Your task to perform on an android device: Clear the shopping cart on walmart. Search for usb-b on walmart, select the first entry, add it to the cart, then select checkout. Image 0: 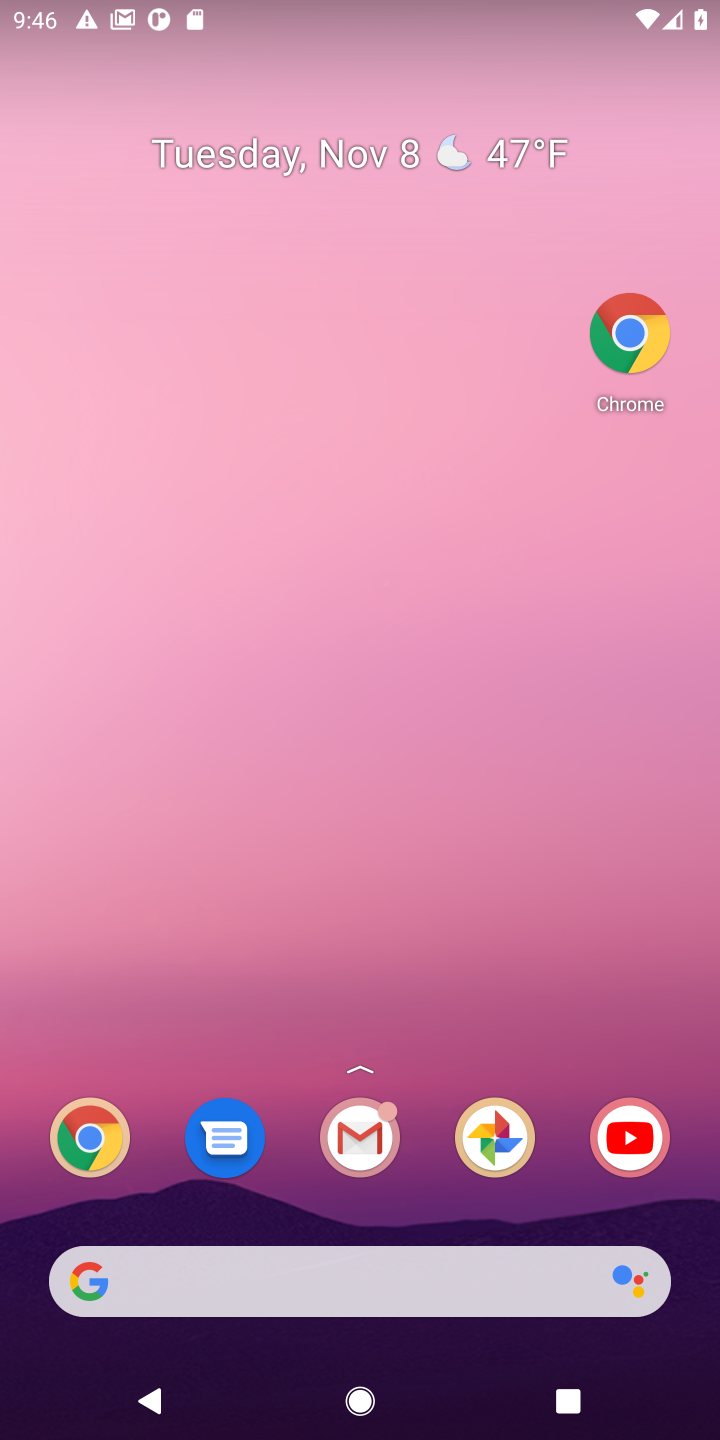
Step 0: drag from (398, 1121) to (339, 156)
Your task to perform on an android device: Clear the shopping cart on walmart. Search for usb-b on walmart, select the first entry, add it to the cart, then select checkout. Image 1: 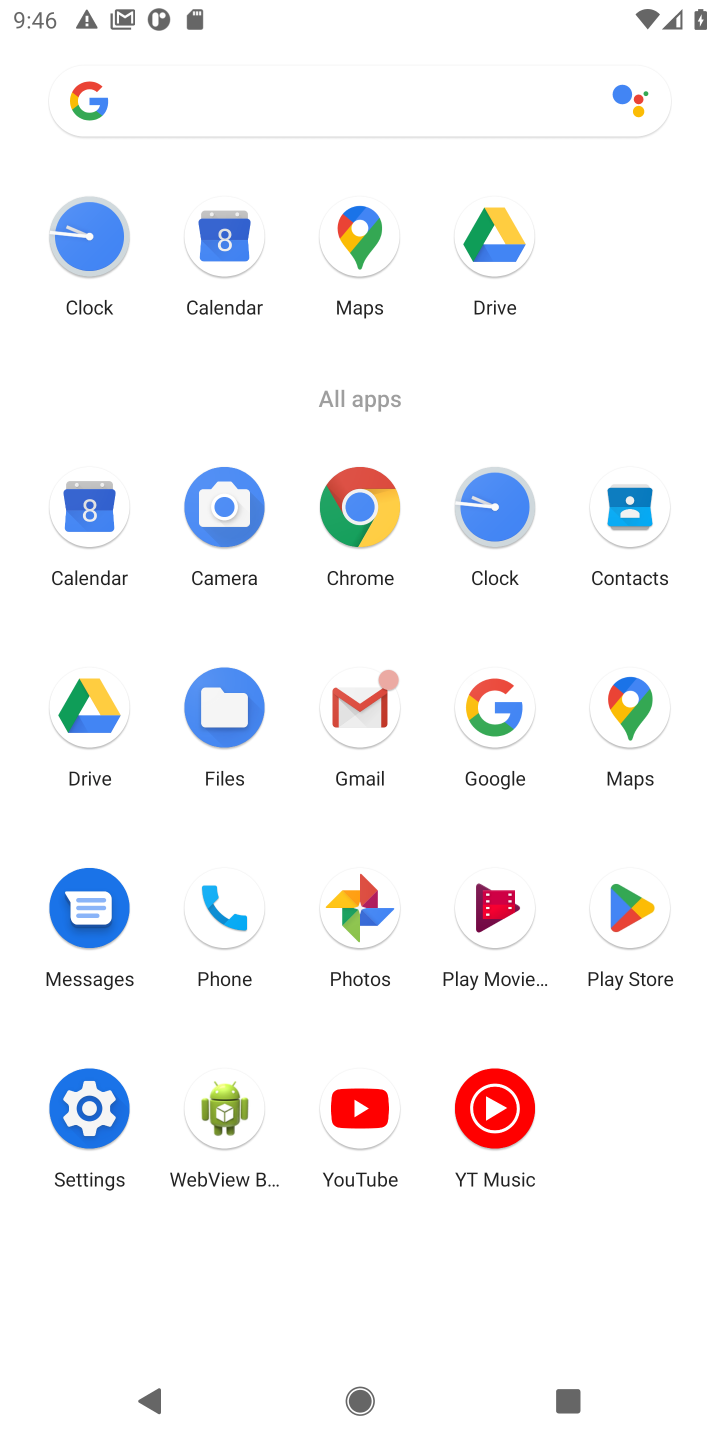
Step 1: click (352, 525)
Your task to perform on an android device: Clear the shopping cart on walmart. Search for usb-b on walmart, select the first entry, add it to the cart, then select checkout. Image 2: 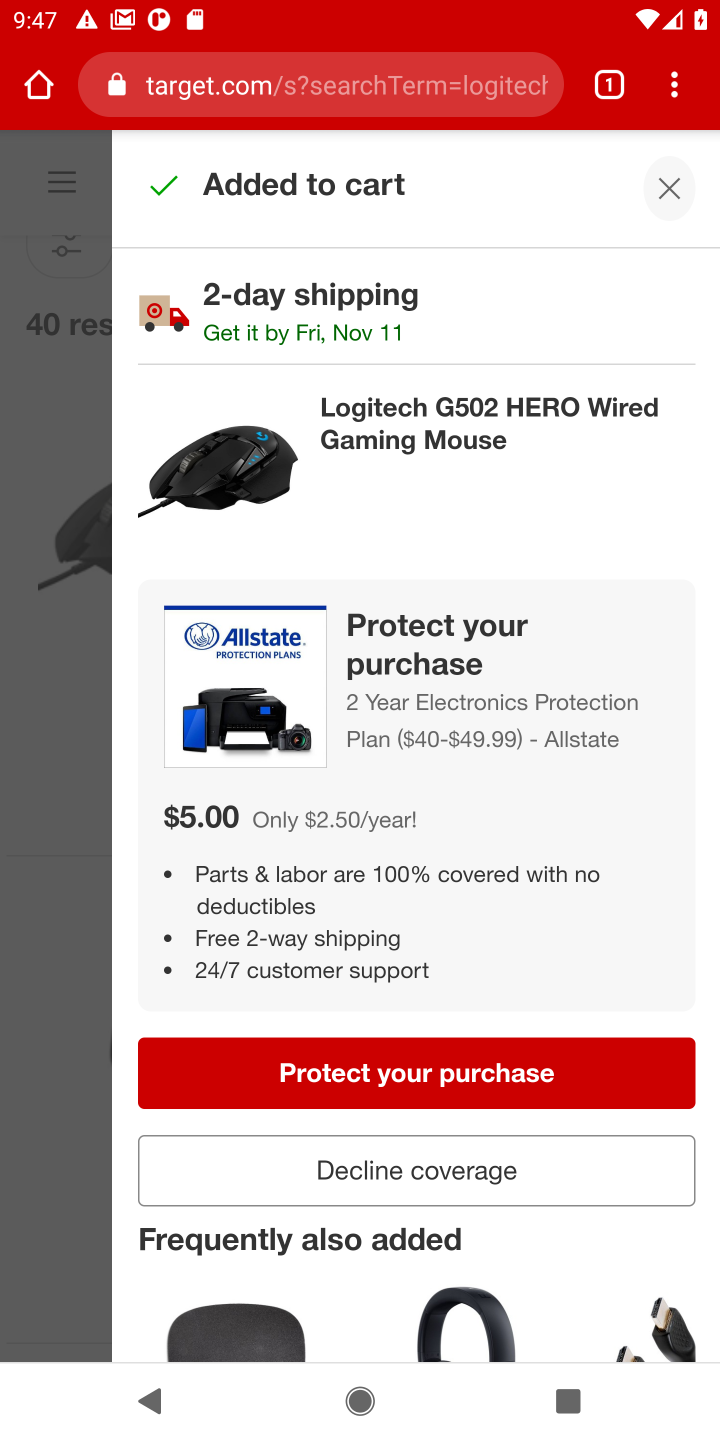
Step 2: click (409, 93)
Your task to perform on an android device: Clear the shopping cart on walmart. Search for usb-b on walmart, select the first entry, add it to the cart, then select checkout. Image 3: 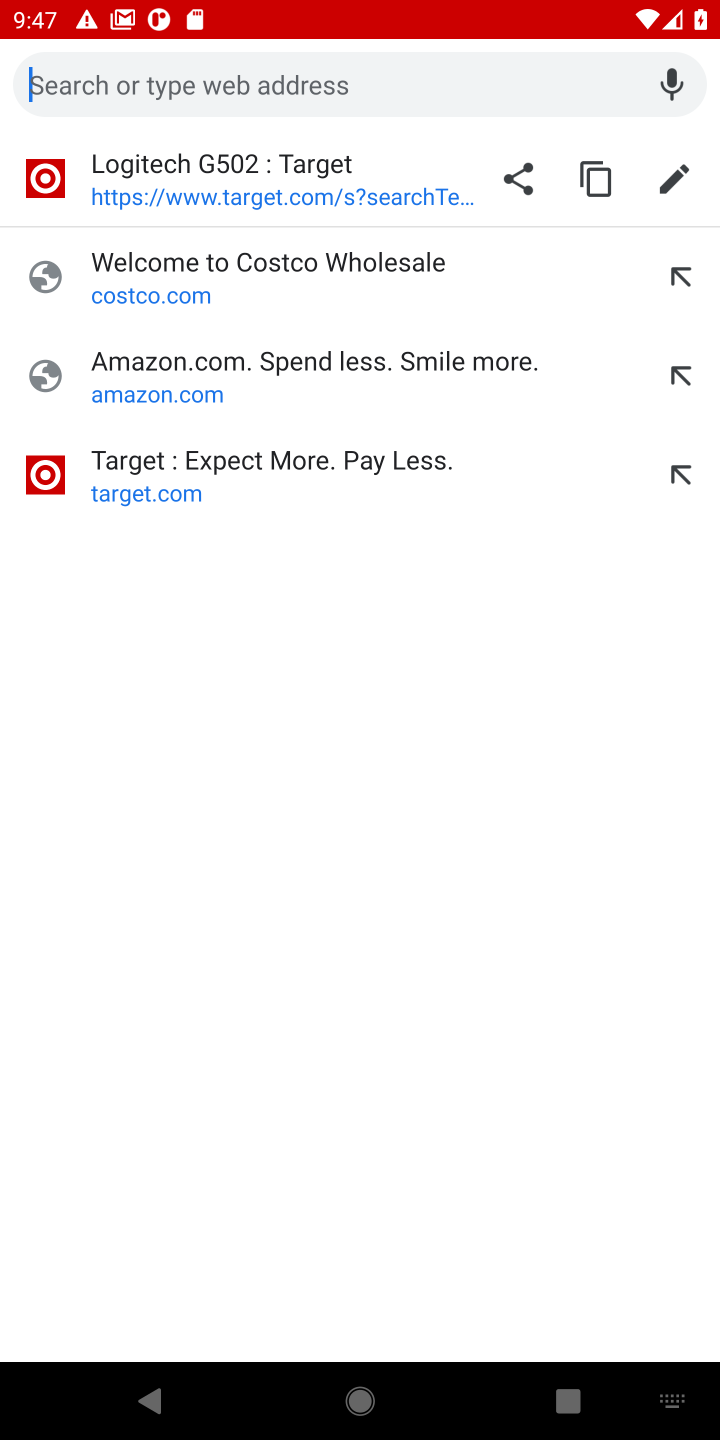
Step 3: press enter
Your task to perform on an android device: Clear the shopping cart on walmart. Search for usb-b on walmart, select the first entry, add it to the cart, then select checkout. Image 4: 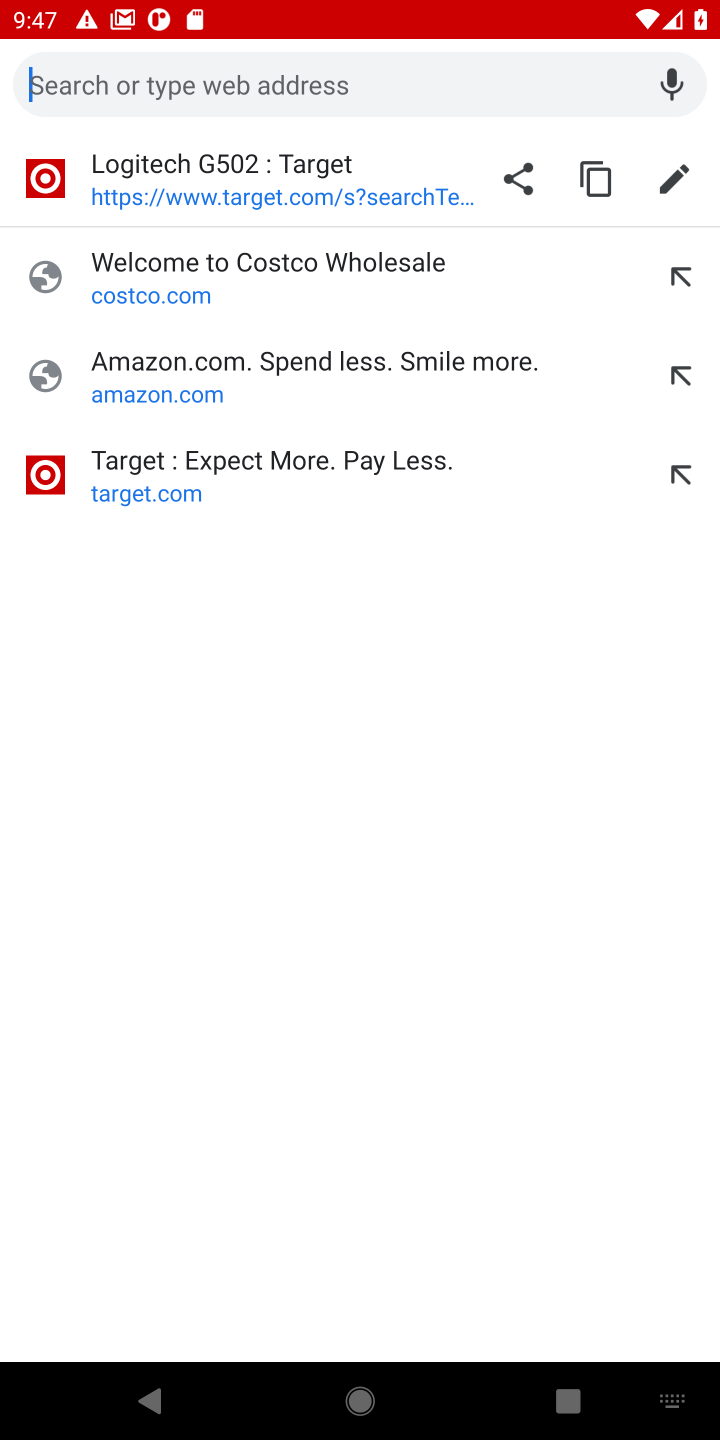
Step 4: type "walmart."
Your task to perform on an android device: Clear the shopping cart on walmart. Search for usb-b on walmart, select the first entry, add it to the cart, then select checkout. Image 5: 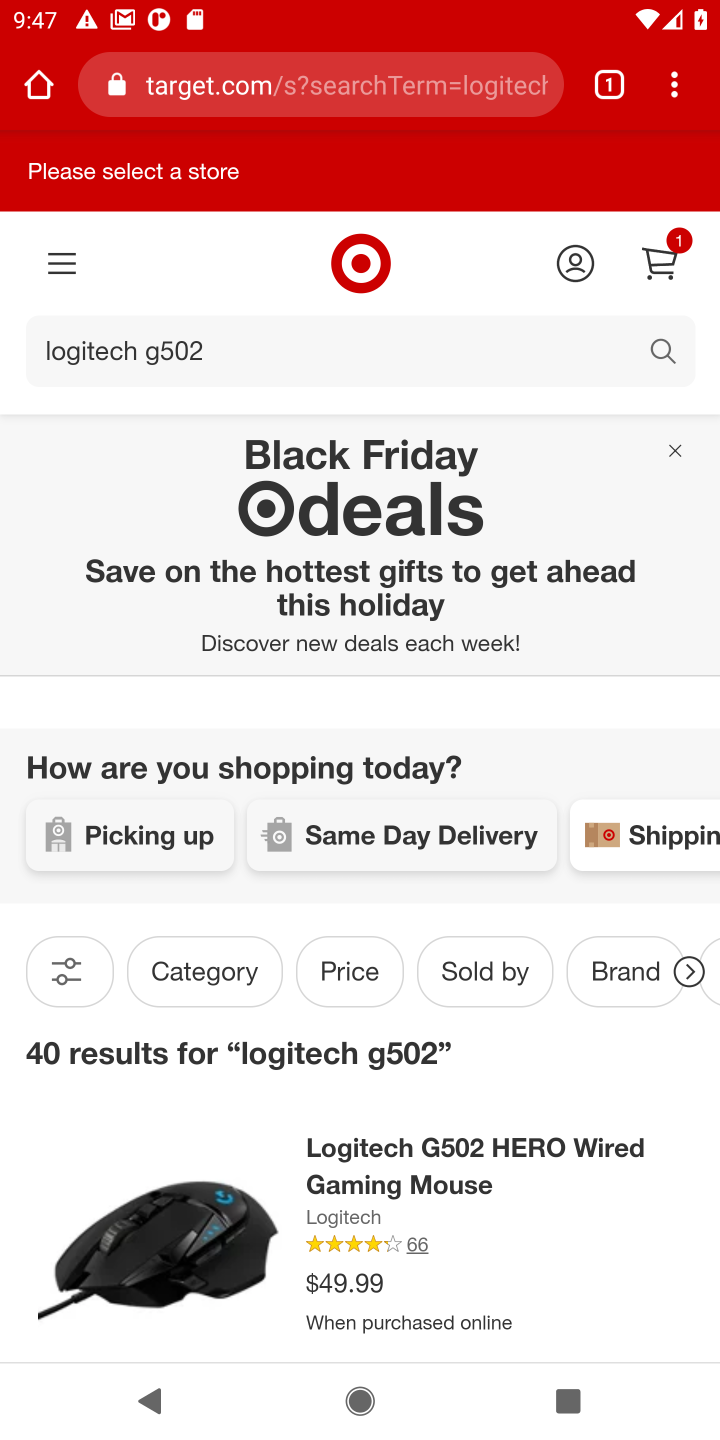
Step 5: click (357, 76)
Your task to perform on an android device: Clear the shopping cart on walmart. Search for usb-b on walmart, select the first entry, add it to the cart, then select checkout. Image 6: 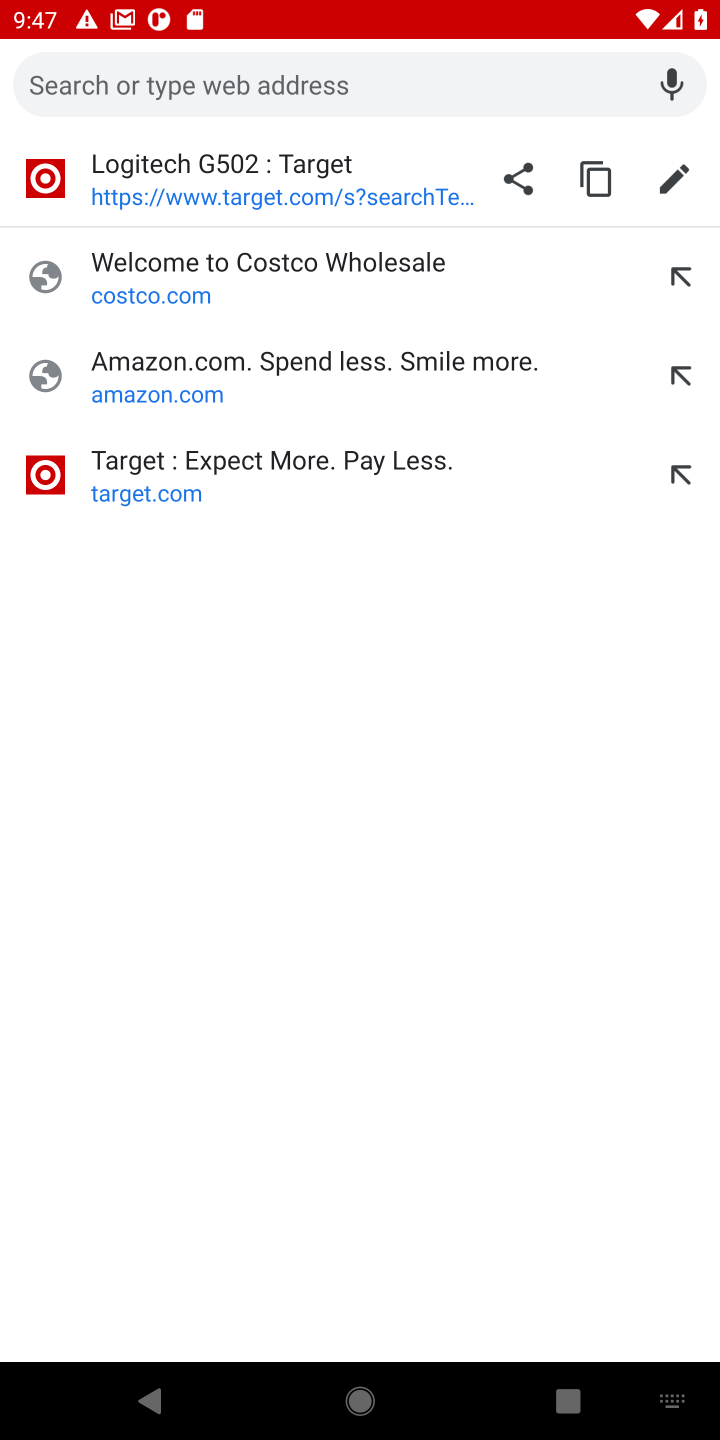
Step 6: type "walmart."
Your task to perform on an android device: Clear the shopping cart on walmart. Search for usb-b on walmart, select the first entry, add it to the cart, then select checkout. Image 7: 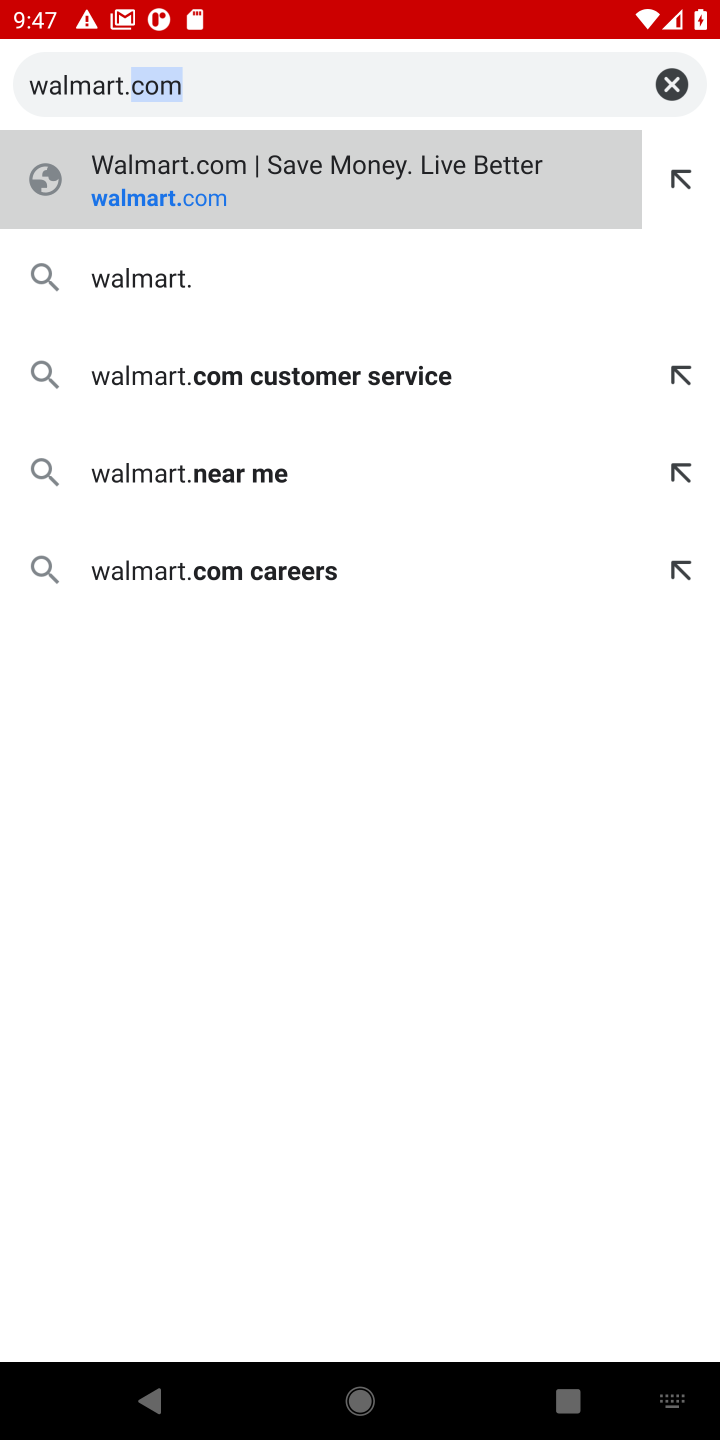
Step 7: press enter
Your task to perform on an android device: Clear the shopping cart on walmart. Search for usb-b on walmart, select the first entry, add it to the cart, then select checkout. Image 8: 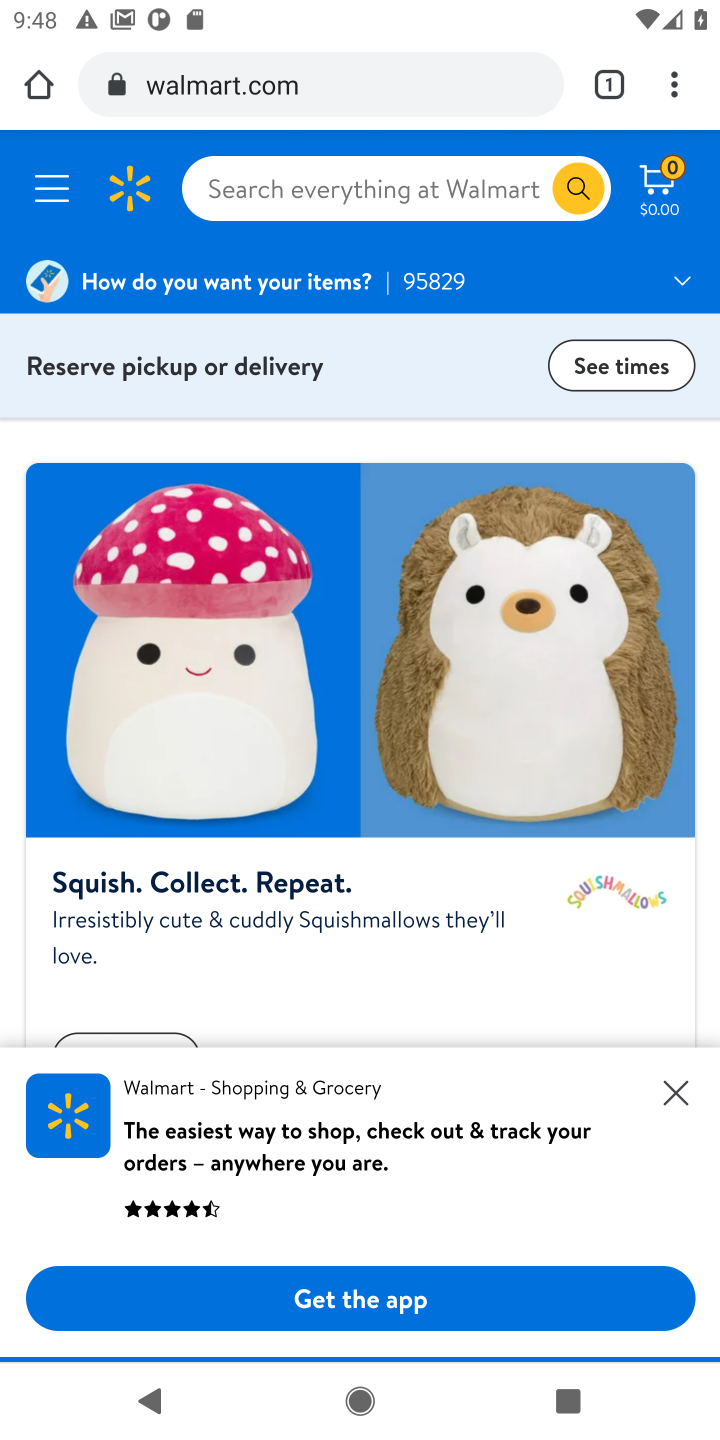
Step 8: click (306, 184)
Your task to perform on an android device: Clear the shopping cart on walmart. Search for usb-b on walmart, select the first entry, add it to the cart, then select checkout. Image 9: 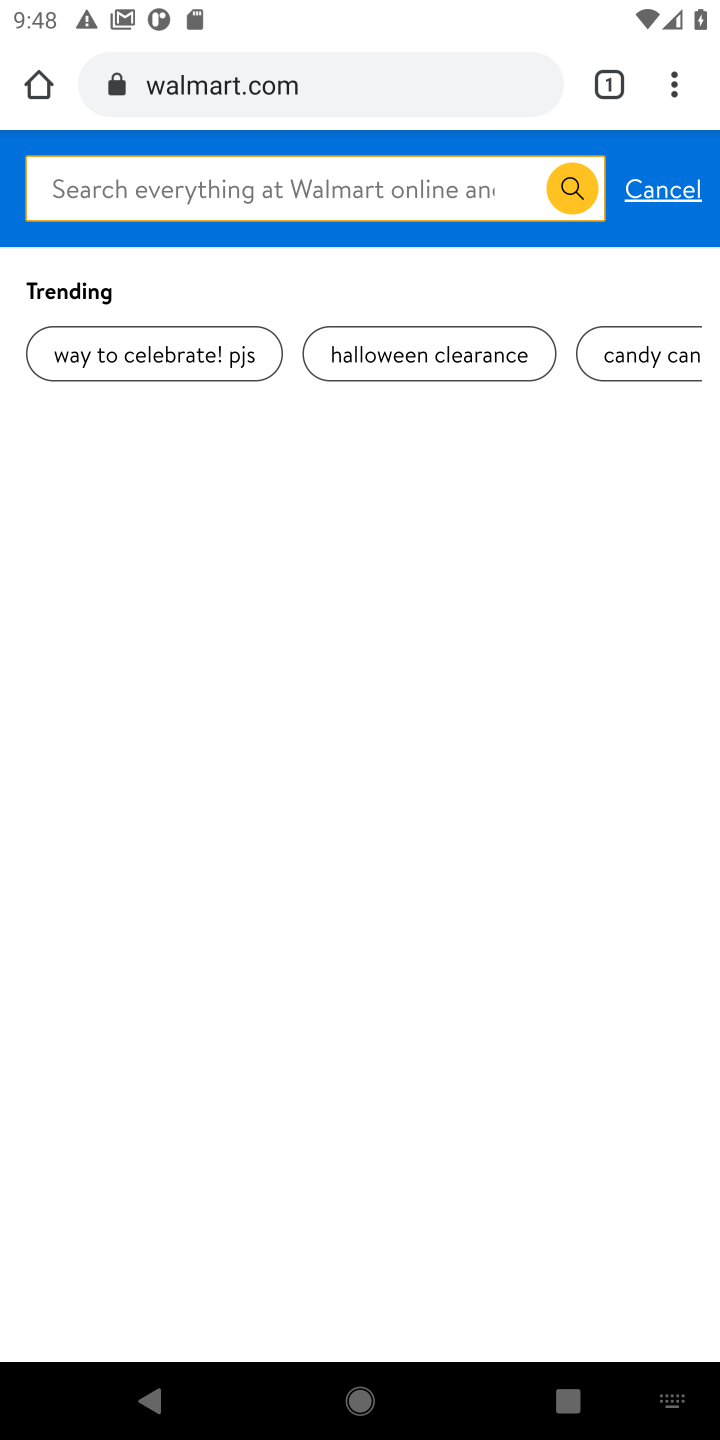
Step 9: type "usb-b"
Your task to perform on an android device: Clear the shopping cart on walmart. Search for usb-b on walmart, select the first entry, add it to the cart, then select checkout. Image 10: 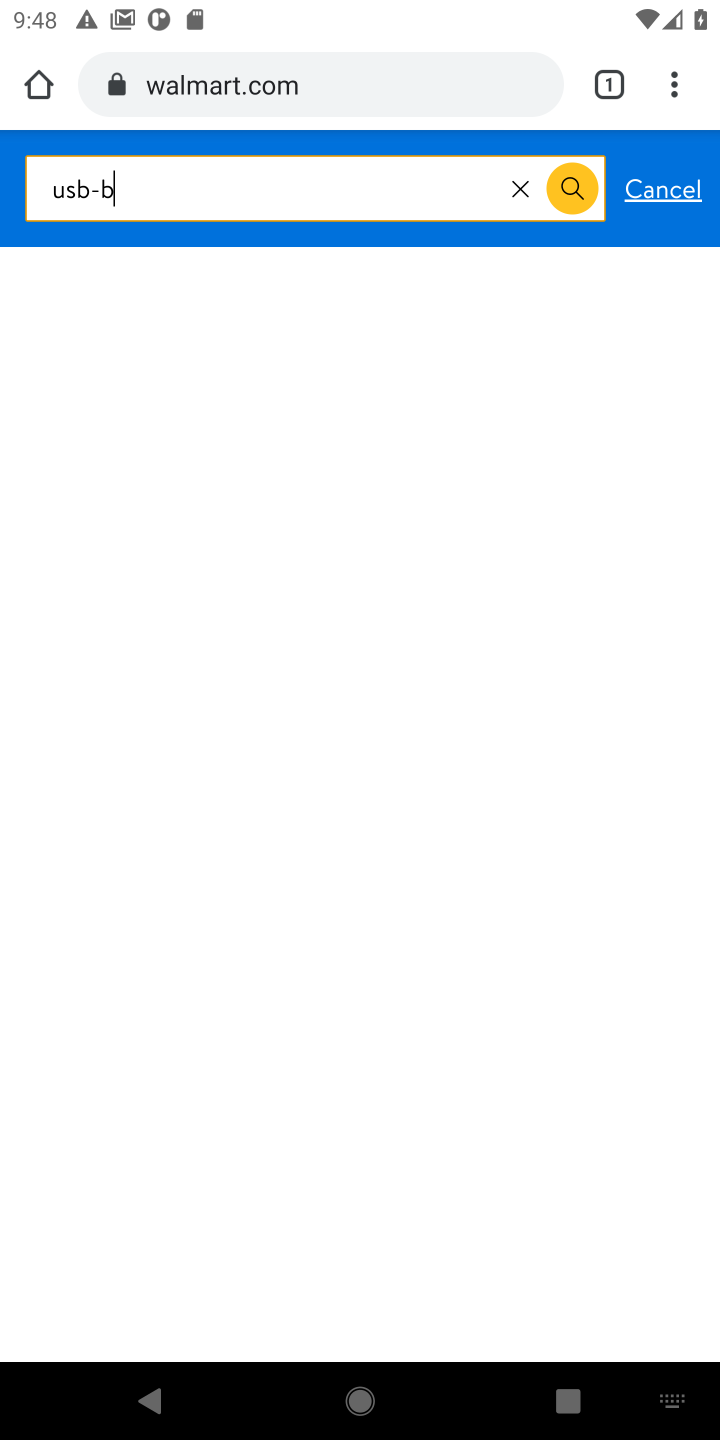
Step 10: press enter
Your task to perform on an android device: Clear the shopping cart on walmart. Search for usb-b on walmart, select the first entry, add it to the cart, then select checkout. Image 11: 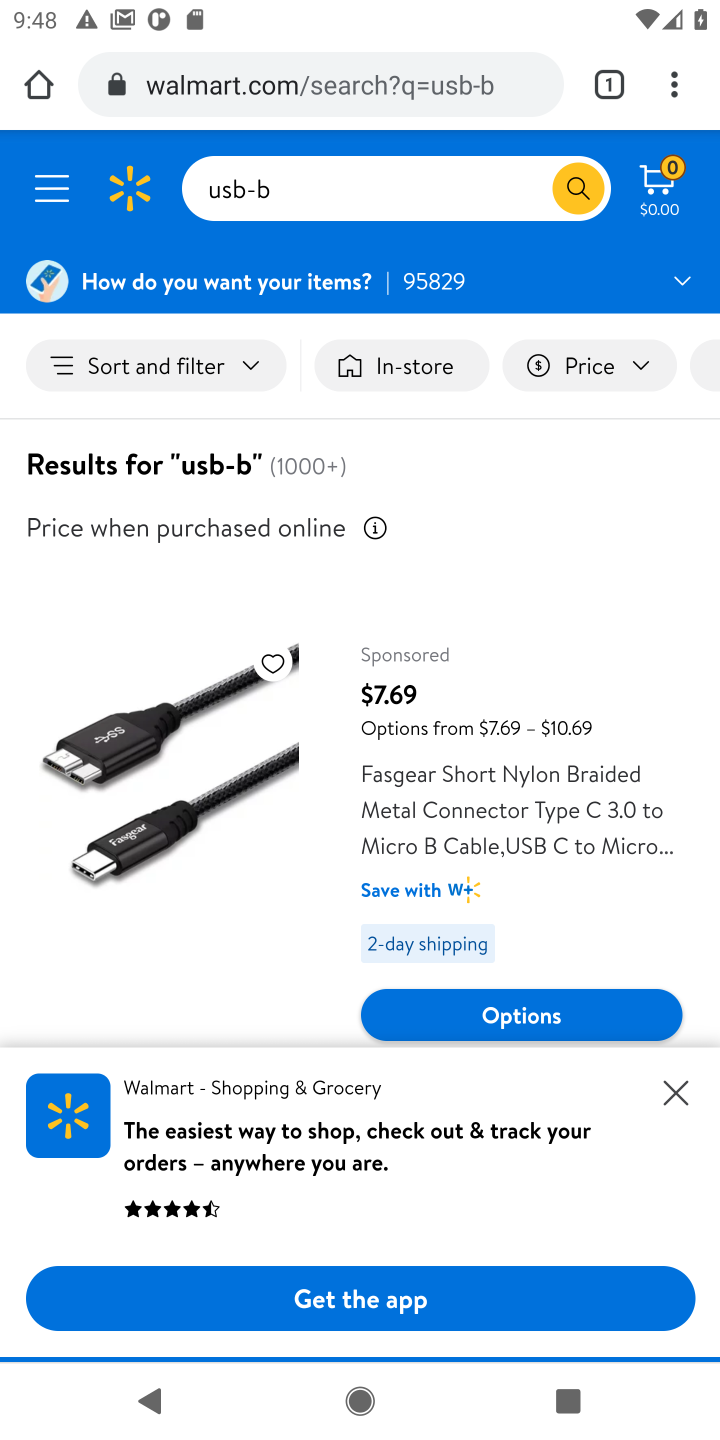
Step 11: click (467, 996)
Your task to perform on an android device: Clear the shopping cart on walmart. Search for usb-b on walmart, select the first entry, add it to the cart, then select checkout. Image 12: 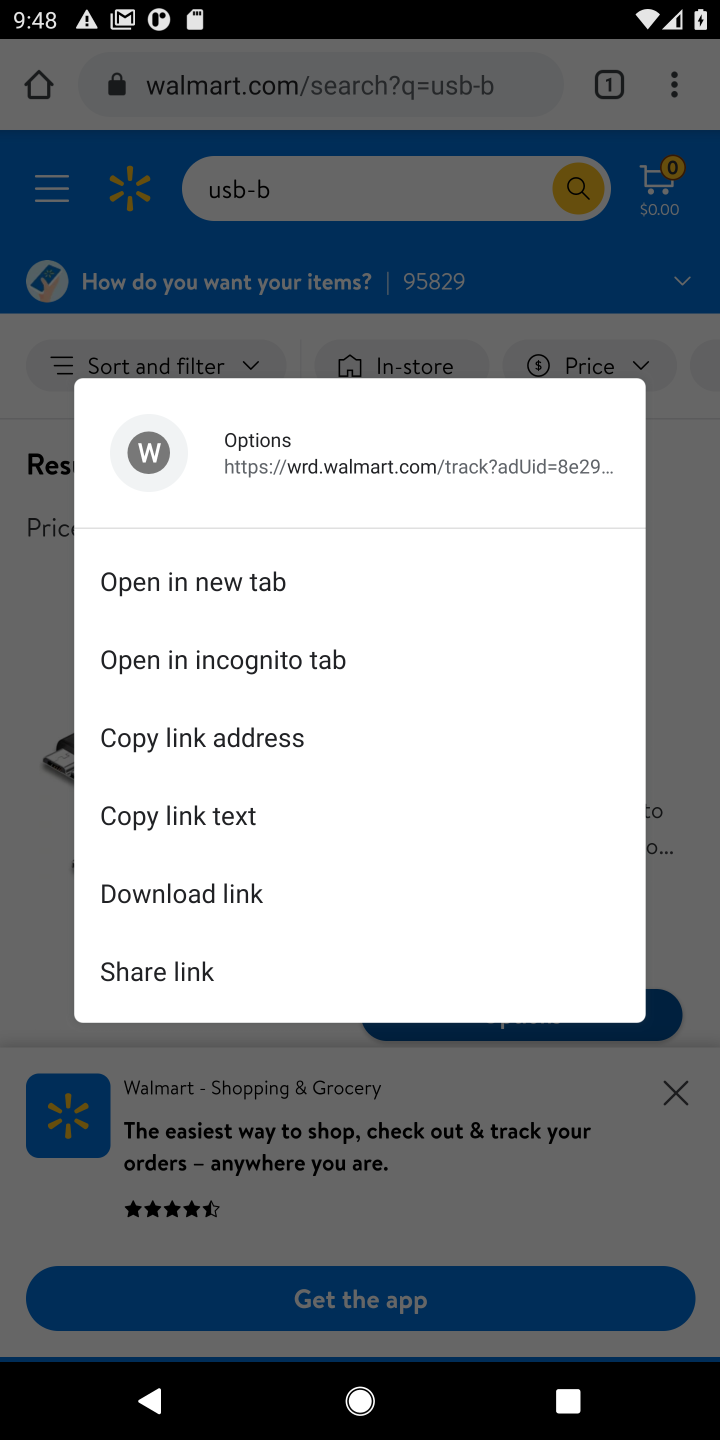
Step 12: click (702, 451)
Your task to perform on an android device: Clear the shopping cart on walmart. Search for usb-b on walmart, select the first entry, add it to the cart, then select checkout. Image 13: 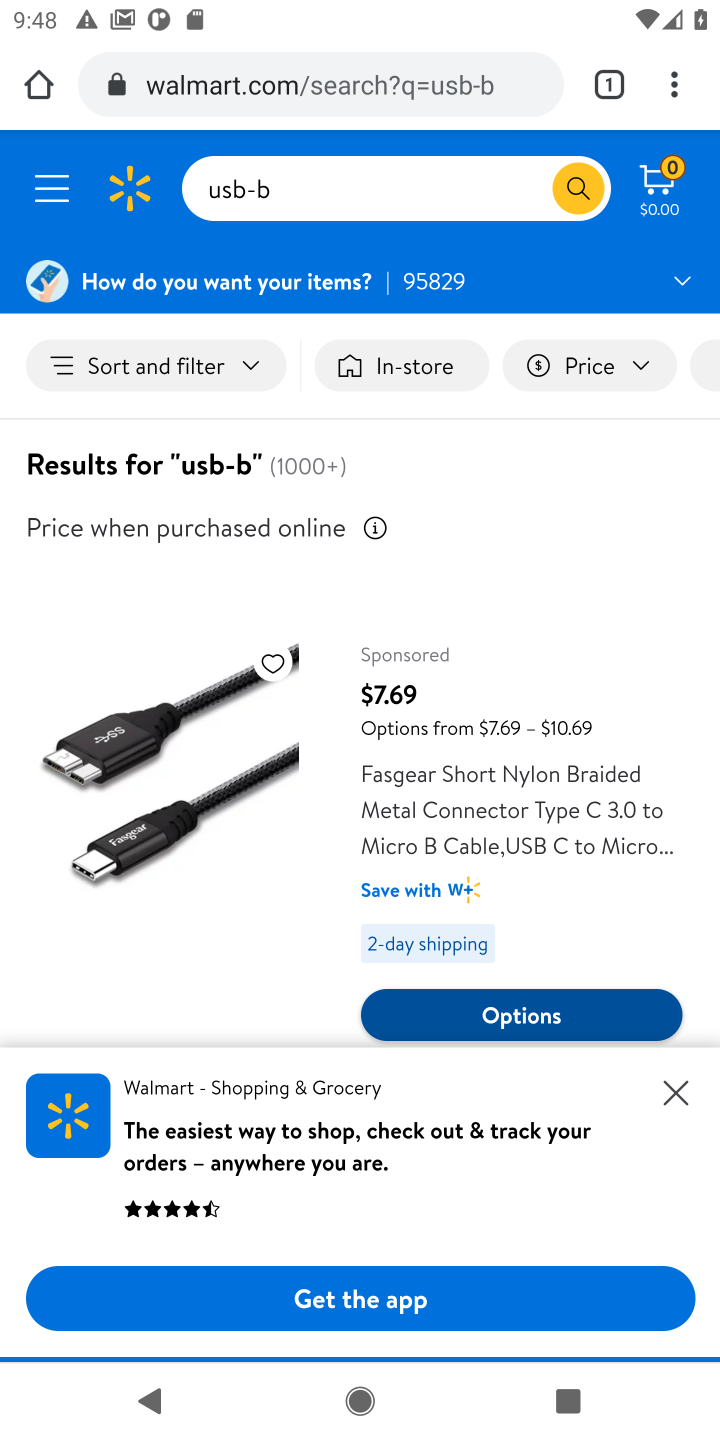
Step 13: click (522, 1019)
Your task to perform on an android device: Clear the shopping cart on walmart. Search for usb-b on walmart, select the first entry, add it to the cart, then select checkout. Image 14: 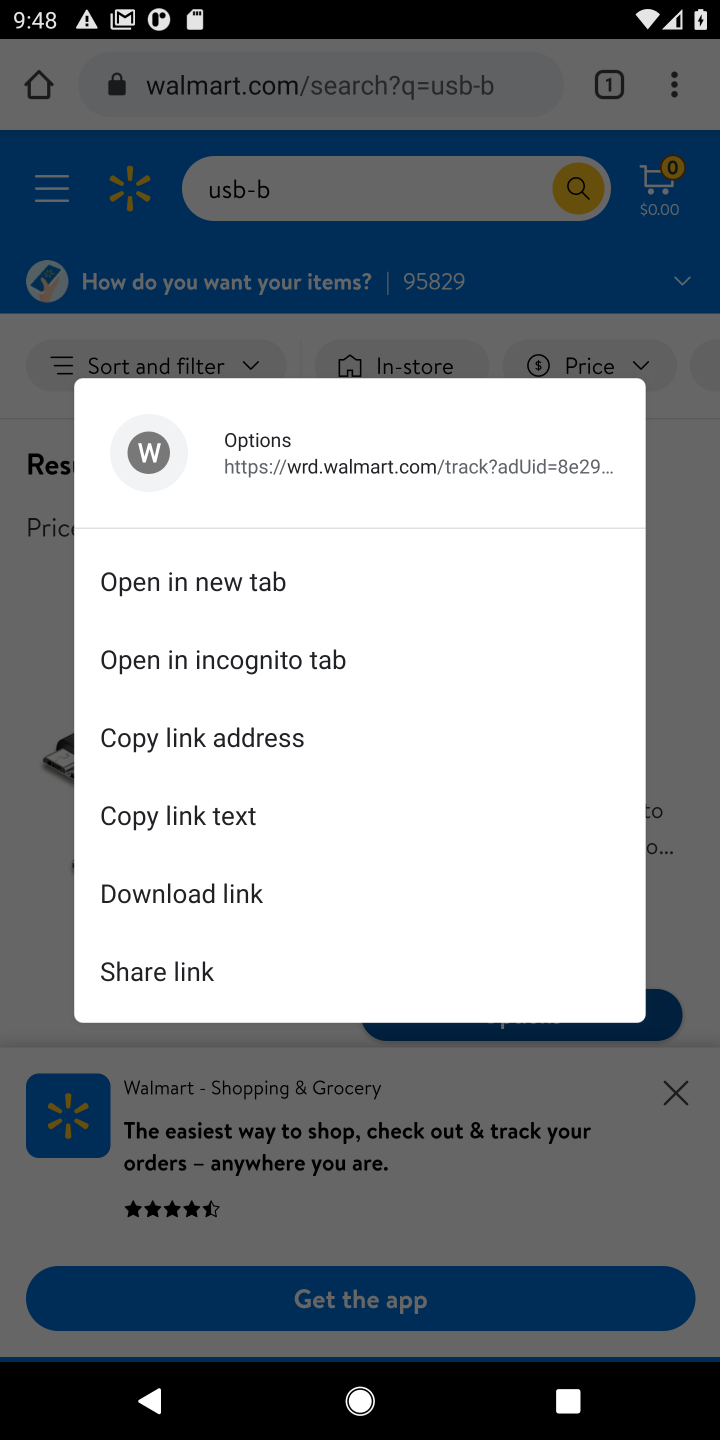
Step 14: click (645, 1059)
Your task to perform on an android device: Clear the shopping cart on walmart. Search for usb-b on walmart, select the first entry, add it to the cart, then select checkout. Image 15: 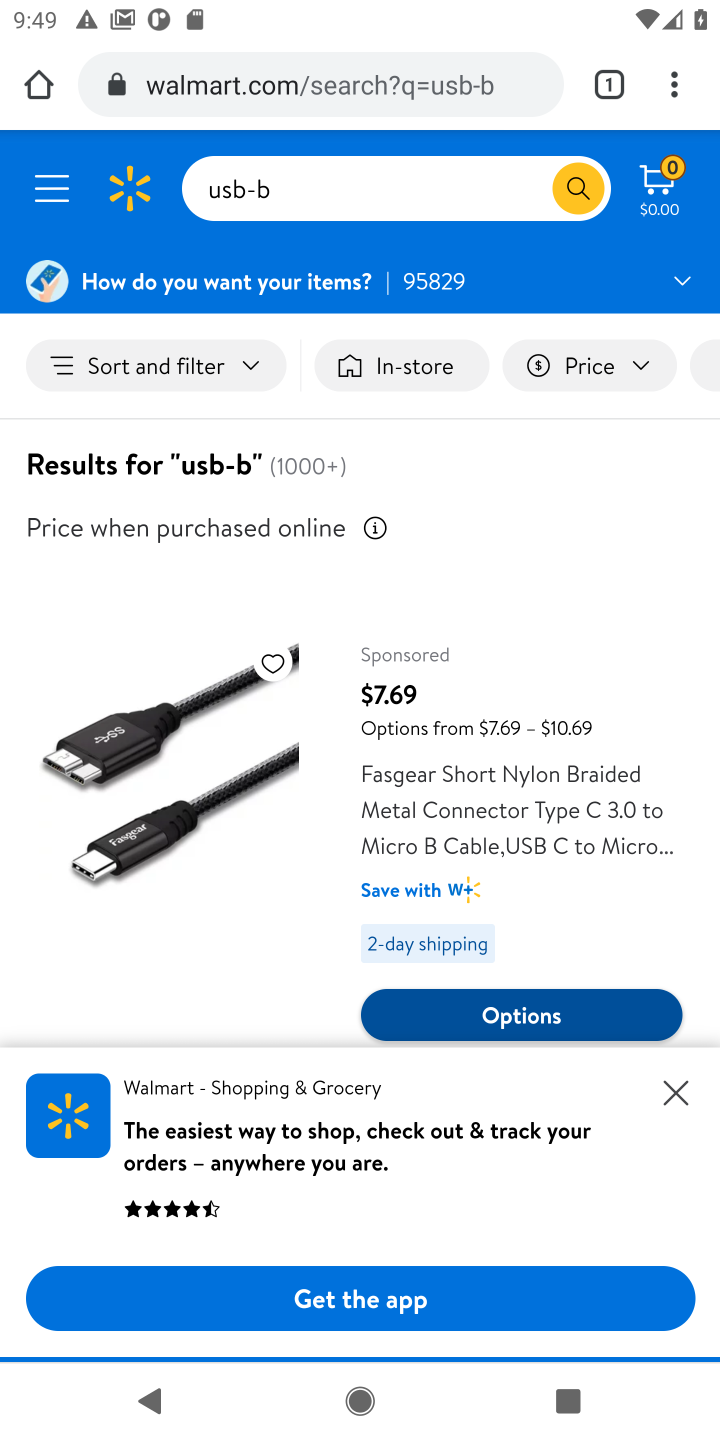
Step 15: click (508, 1023)
Your task to perform on an android device: Clear the shopping cart on walmart. Search for usb-b on walmart, select the first entry, add it to the cart, then select checkout. Image 16: 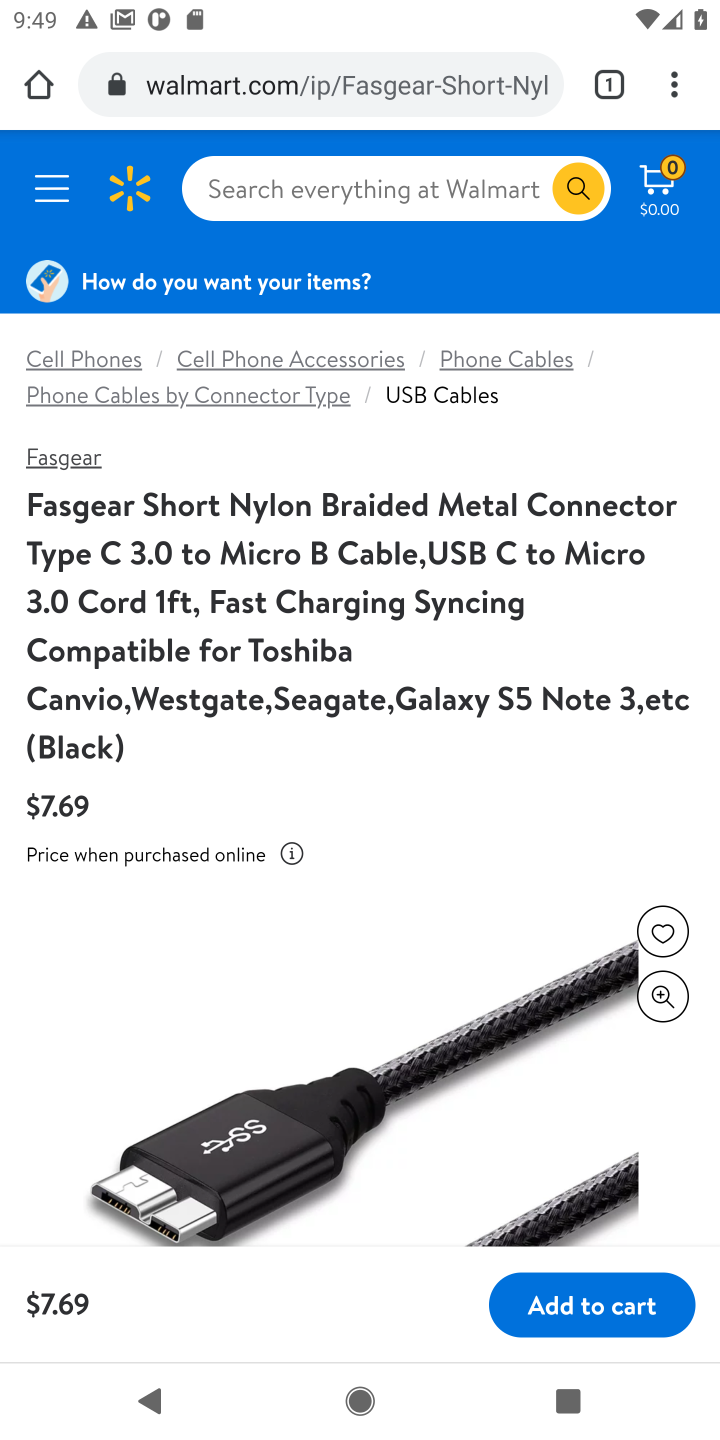
Step 16: click (630, 632)
Your task to perform on an android device: Clear the shopping cart on walmart. Search for usb-b on walmart, select the first entry, add it to the cart, then select checkout. Image 17: 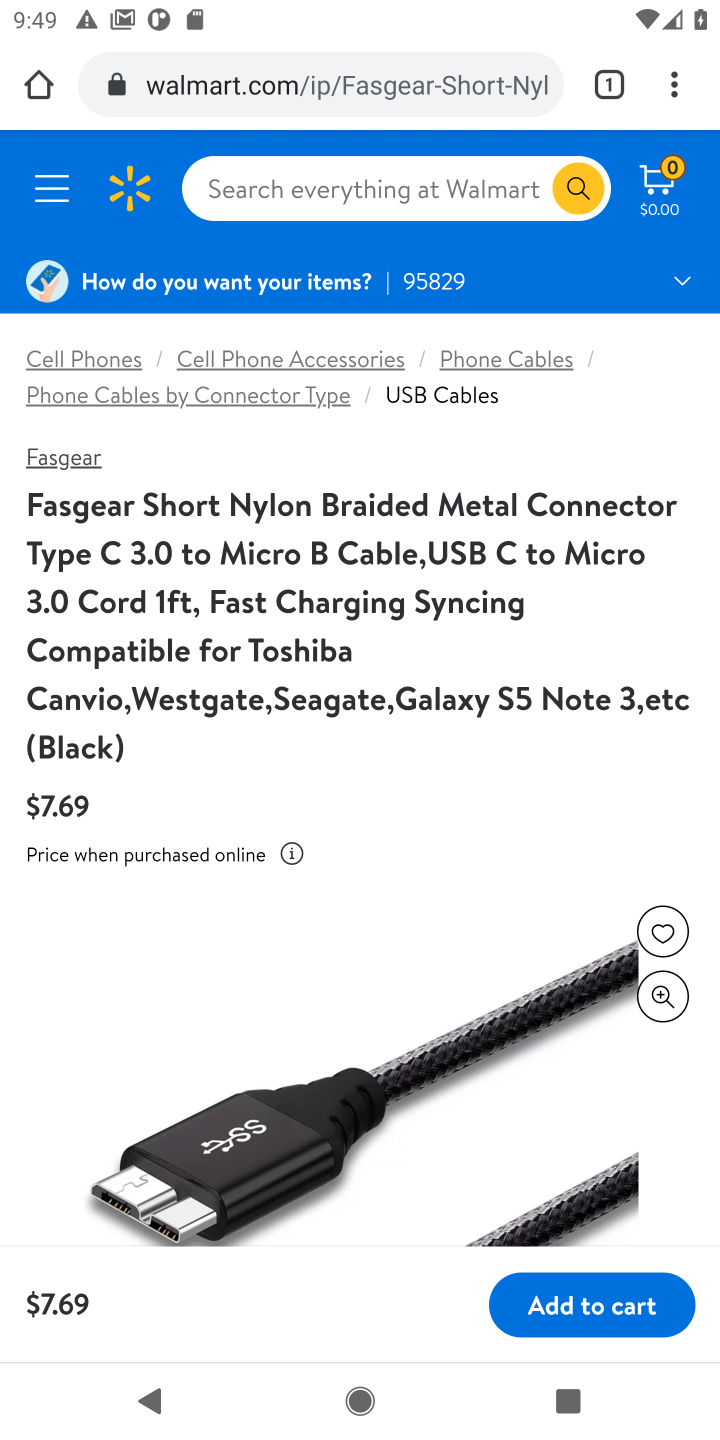
Step 17: click (622, 1304)
Your task to perform on an android device: Clear the shopping cart on walmart. Search for usb-b on walmart, select the first entry, add it to the cart, then select checkout. Image 18: 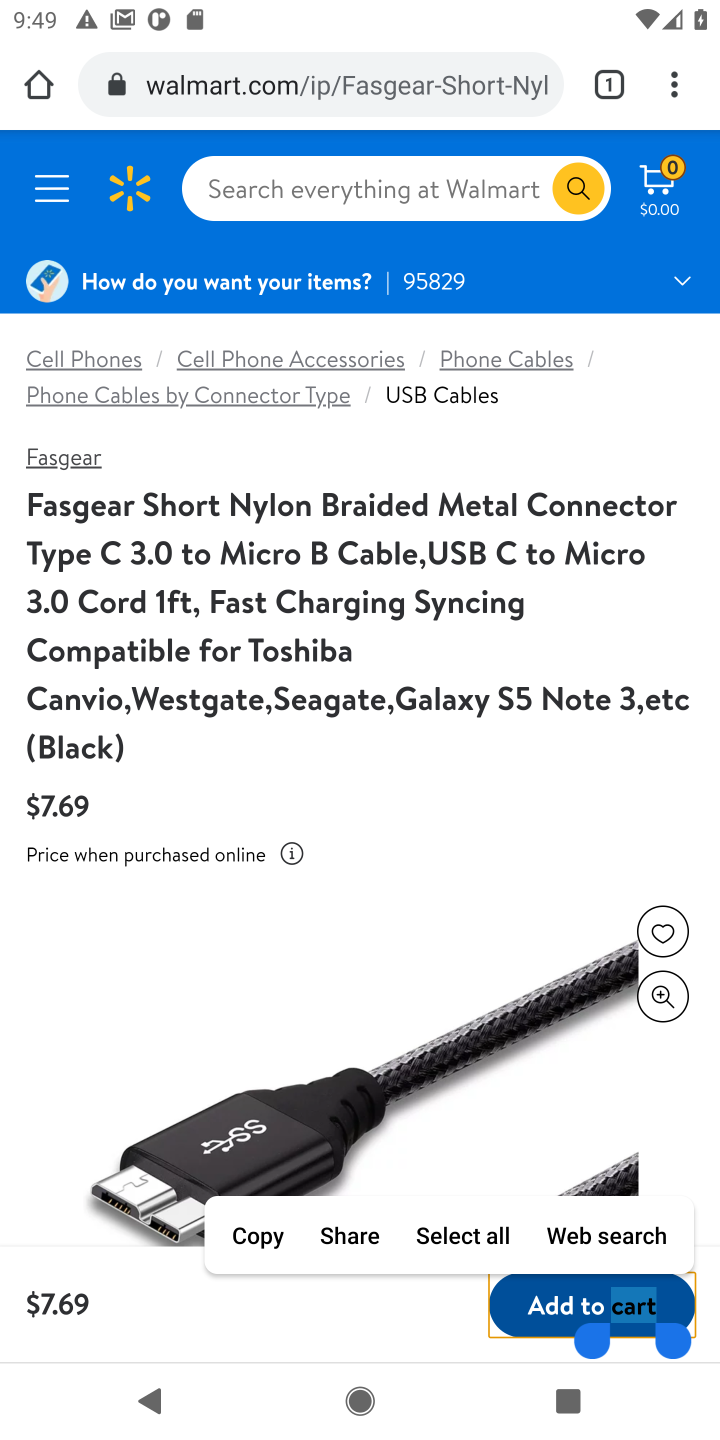
Step 18: click (534, 1304)
Your task to perform on an android device: Clear the shopping cart on walmart. Search for usb-b on walmart, select the first entry, add it to the cart, then select checkout. Image 19: 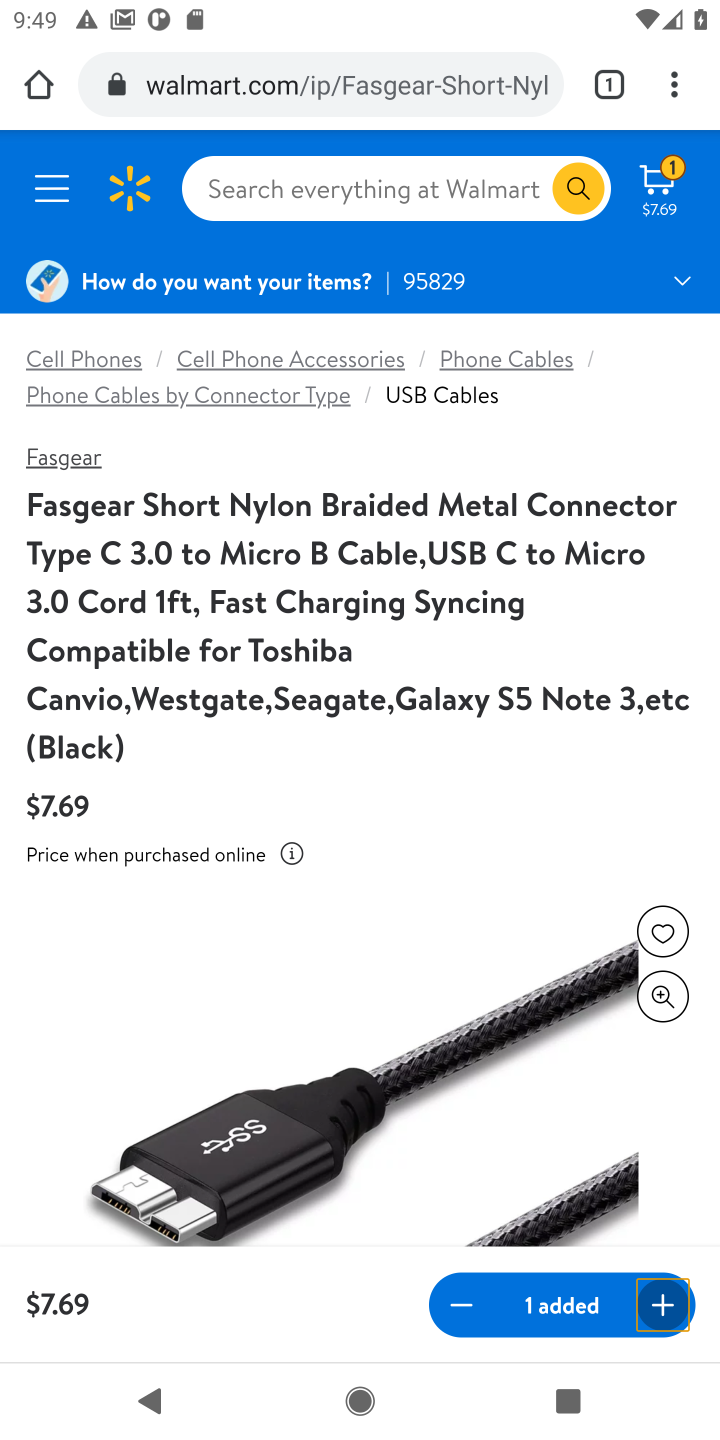
Step 19: click (648, 148)
Your task to perform on an android device: Clear the shopping cart on walmart. Search for usb-b on walmart, select the first entry, add it to the cart, then select checkout. Image 20: 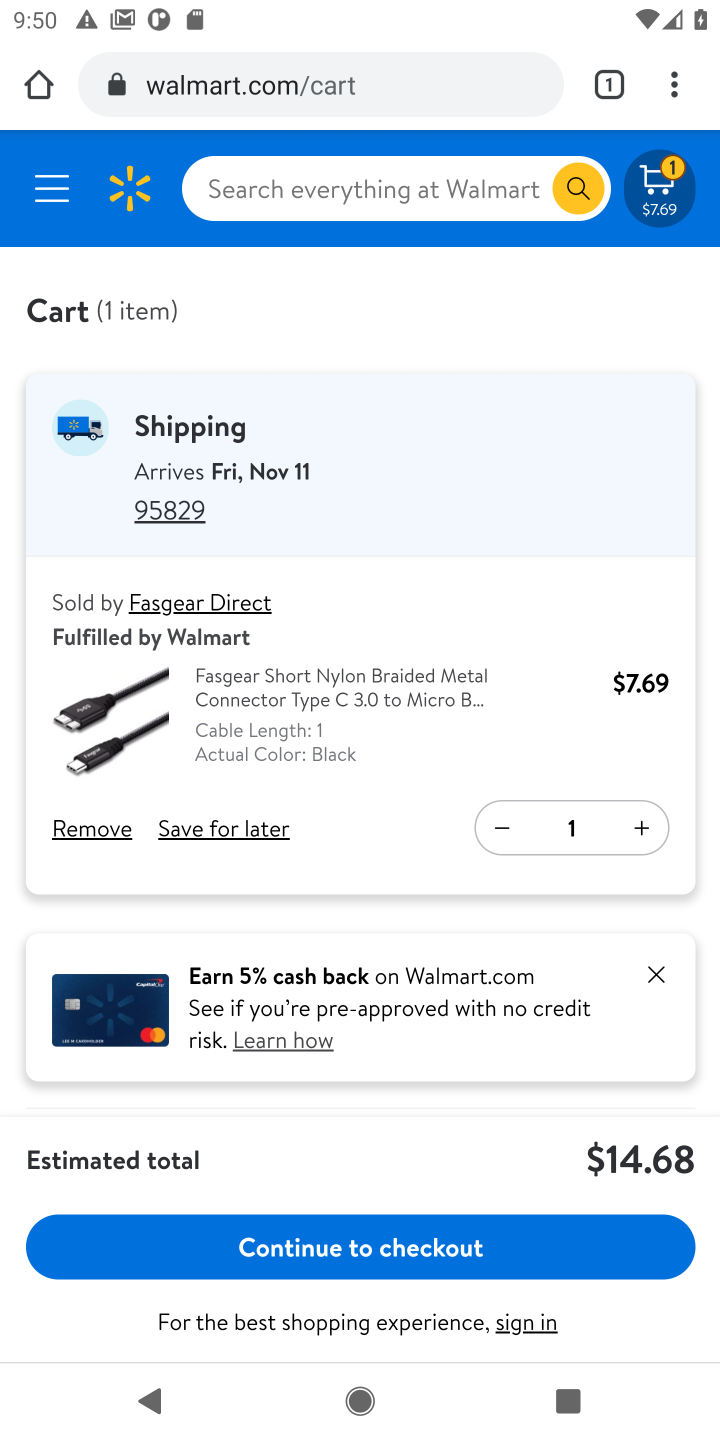
Step 20: click (521, 1253)
Your task to perform on an android device: Clear the shopping cart on walmart. Search for usb-b on walmart, select the first entry, add it to the cart, then select checkout. Image 21: 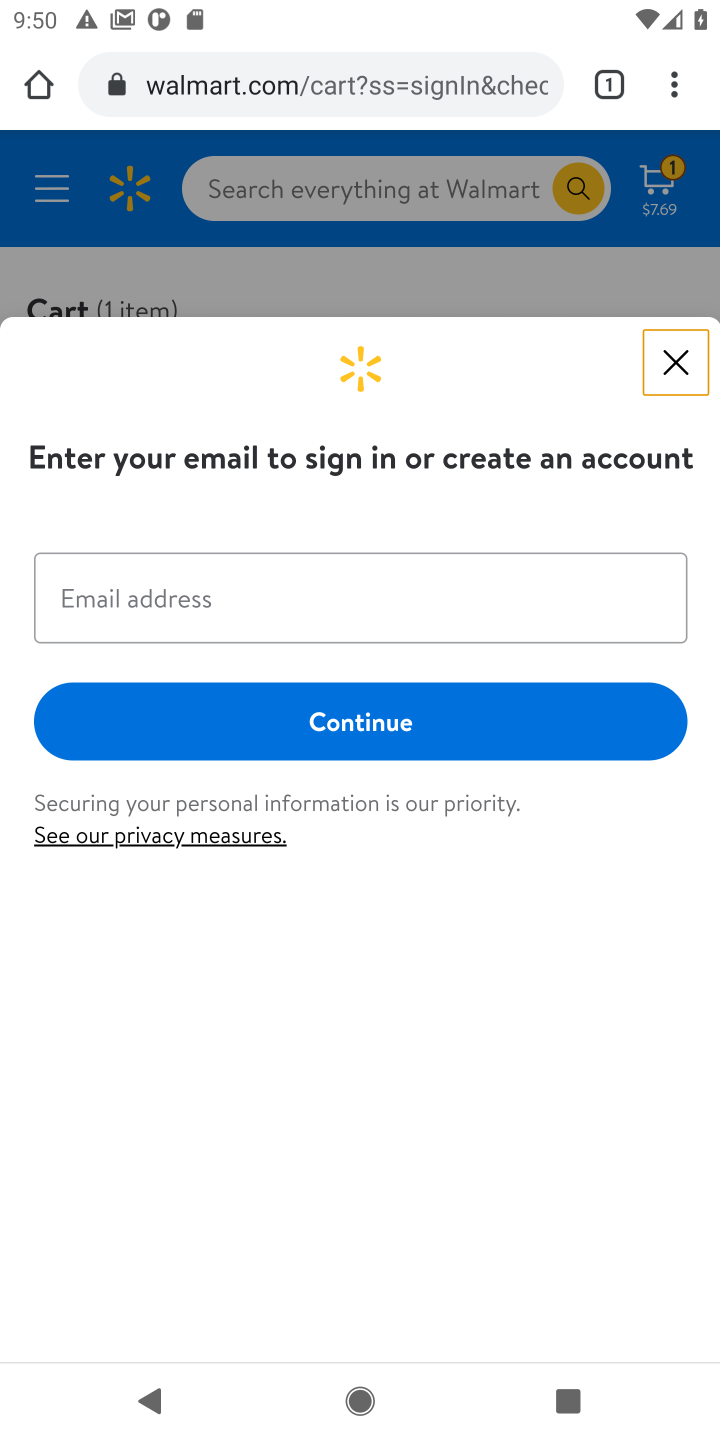
Step 21: task complete